Your task to perform on an android device: Open Android settings Image 0: 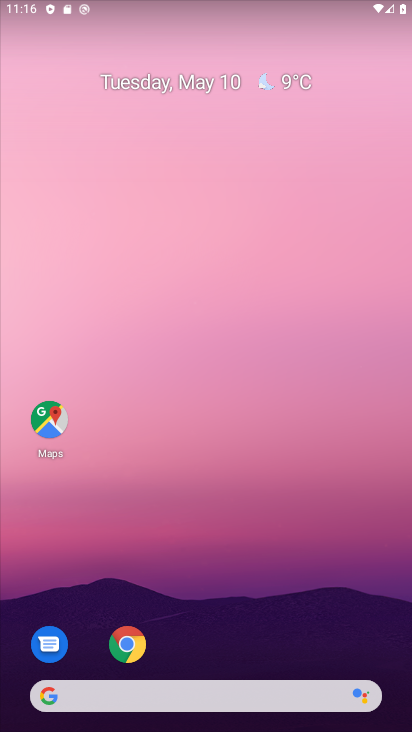
Step 0: drag from (218, 616) to (271, 279)
Your task to perform on an android device: Open Android settings Image 1: 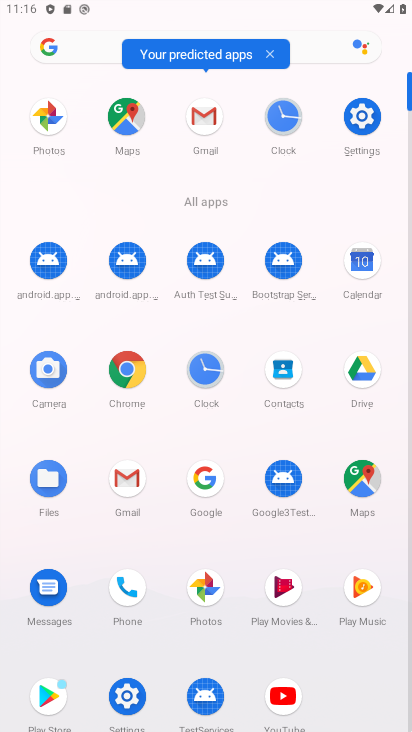
Step 1: click (122, 705)
Your task to perform on an android device: Open Android settings Image 2: 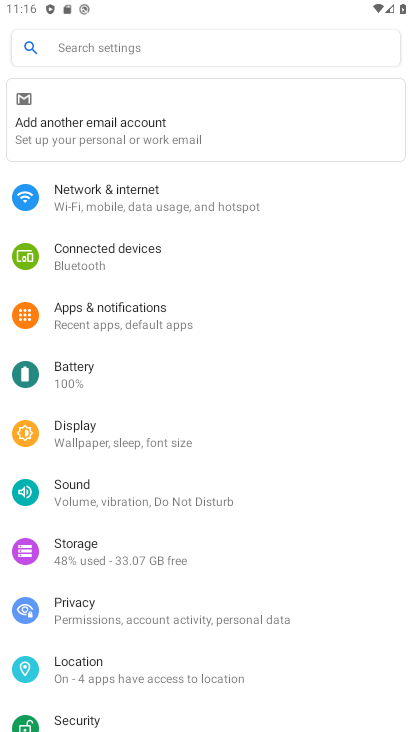
Step 2: drag from (165, 566) to (225, 199)
Your task to perform on an android device: Open Android settings Image 3: 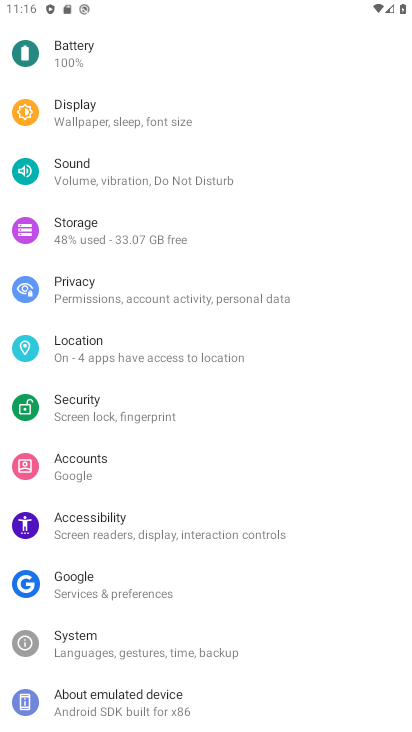
Step 3: drag from (151, 631) to (176, 479)
Your task to perform on an android device: Open Android settings Image 4: 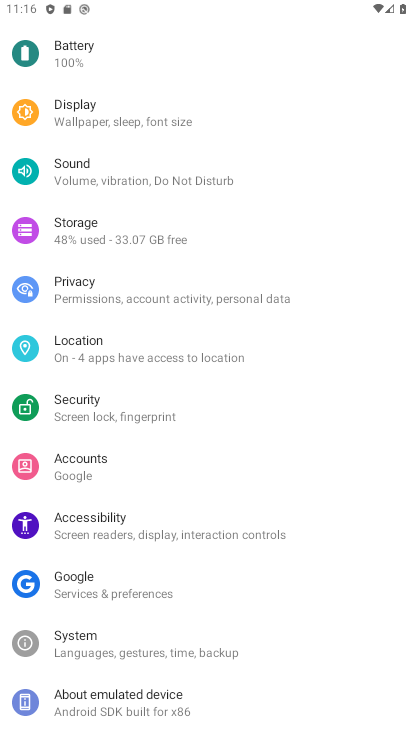
Step 4: click (133, 698)
Your task to perform on an android device: Open Android settings Image 5: 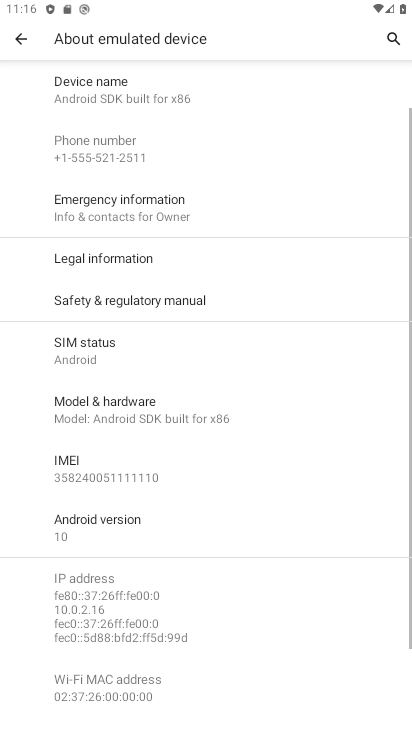
Step 5: click (102, 538)
Your task to perform on an android device: Open Android settings Image 6: 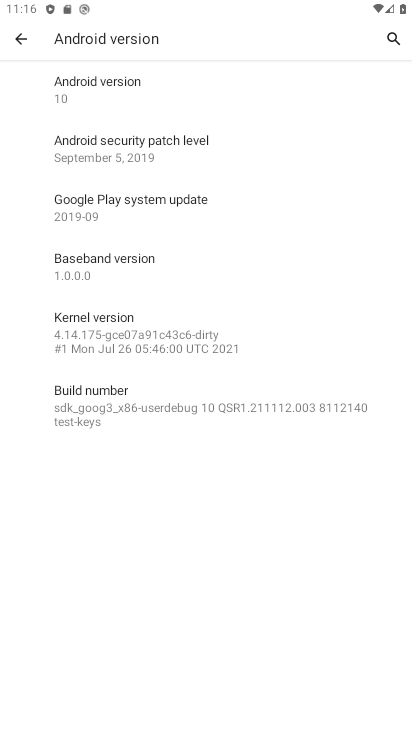
Step 6: task complete